Your task to perform on an android device: open app "Facebook Messenger" (install if not already installed) Image 0: 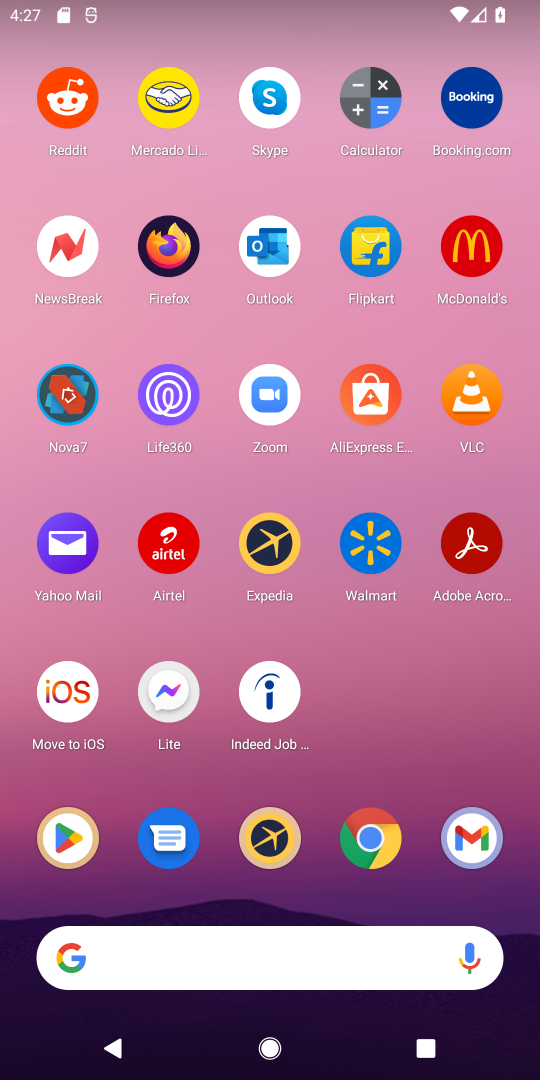
Step 0: click (78, 819)
Your task to perform on an android device: open app "Facebook Messenger" (install if not already installed) Image 1: 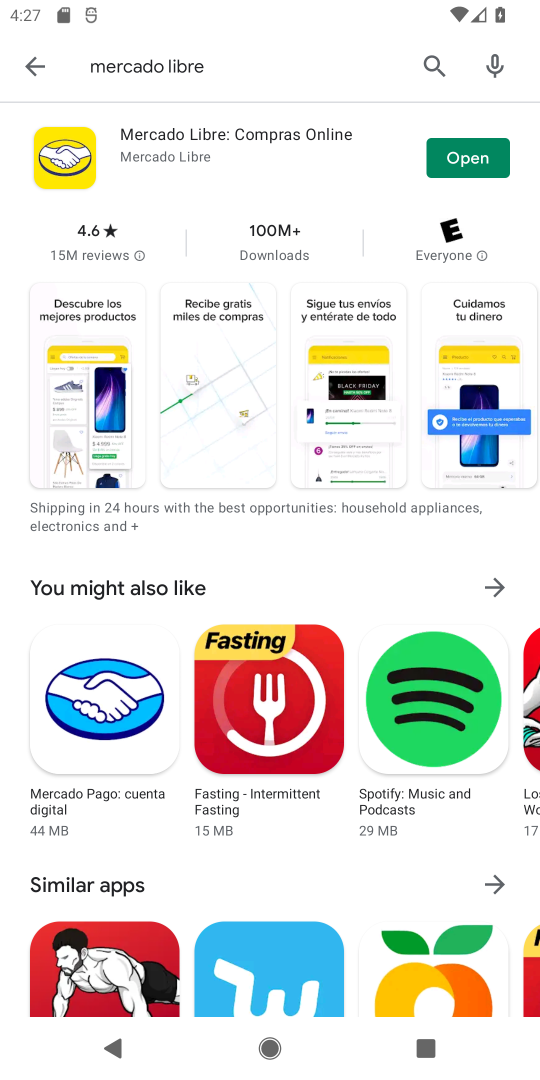
Step 1: click (435, 62)
Your task to perform on an android device: open app "Facebook Messenger" (install if not already installed) Image 2: 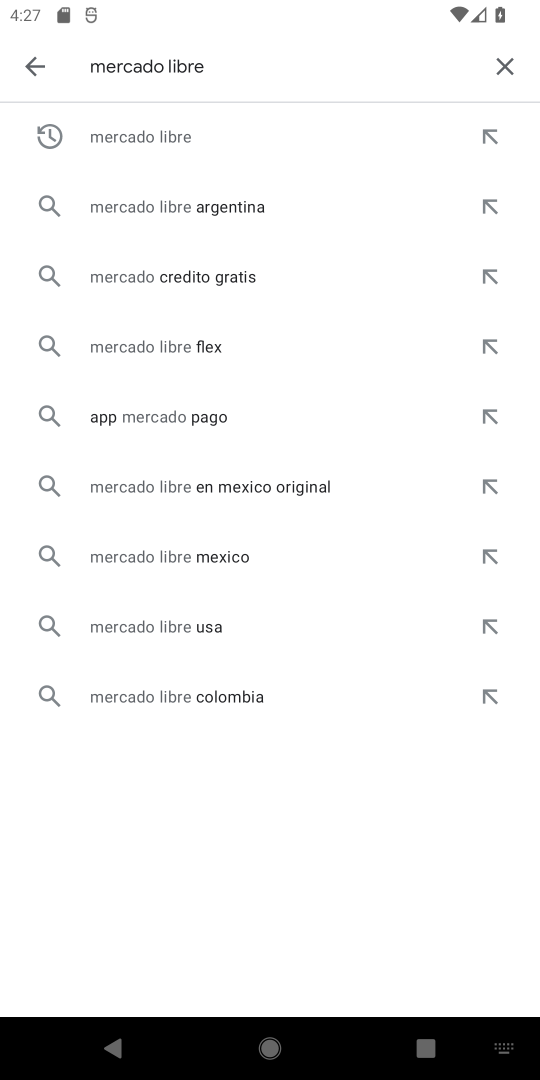
Step 2: click (488, 57)
Your task to perform on an android device: open app "Facebook Messenger" (install if not already installed) Image 3: 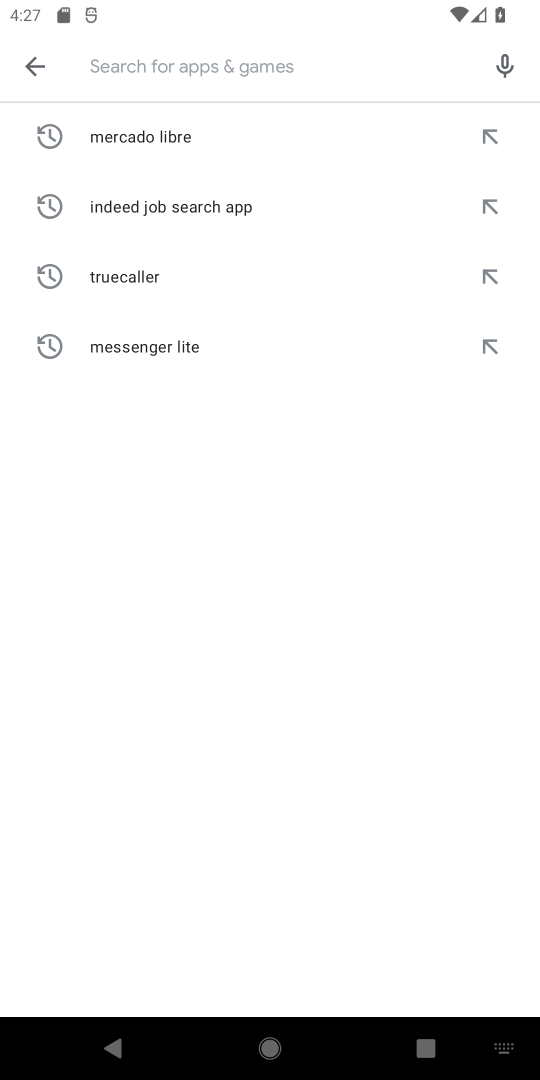
Step 3: type "Facebook Messenger"
Your task to perform on an android device: open app "Facebook Messenger" (install if not already installed) Image 4: 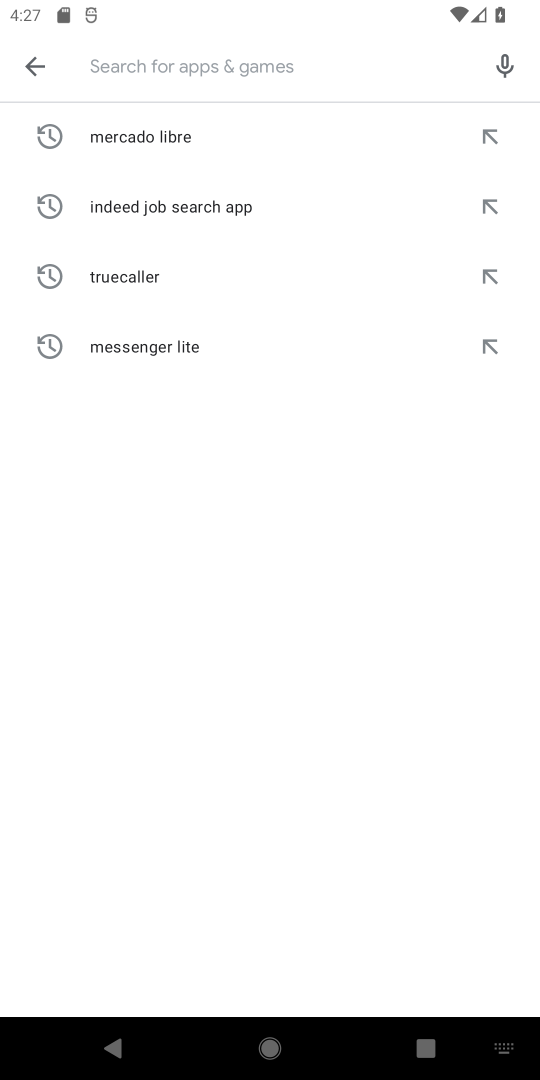
Step 4: click (236, 74)
Your task to perform on an android device: open app "Facebook Messenger" (install if not already installed) Image 5: 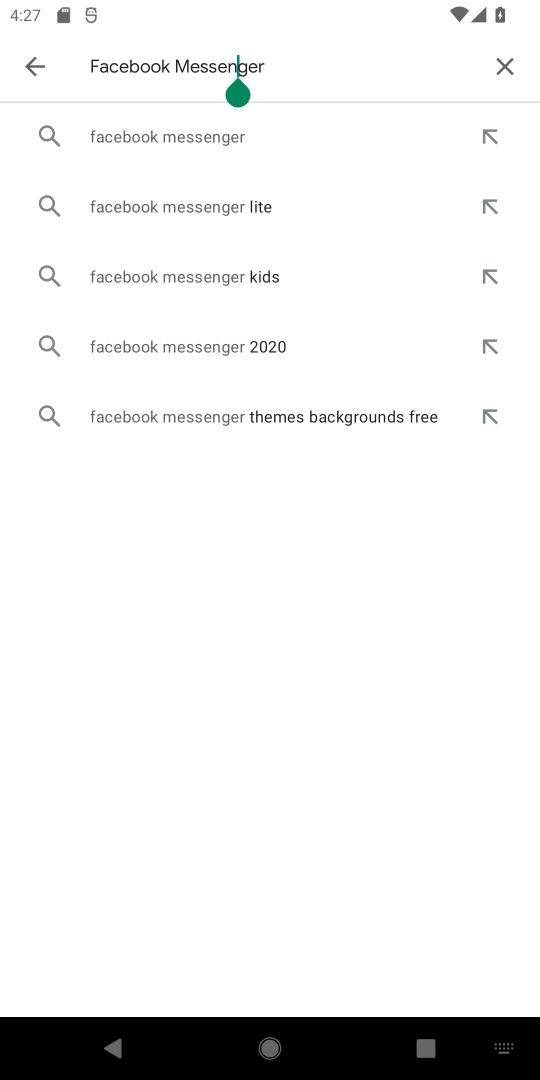
Step 5: click (259, 131)
Your task to perform on an android device: open app "Facebook Messenger" (install if not already installed) Image 6: 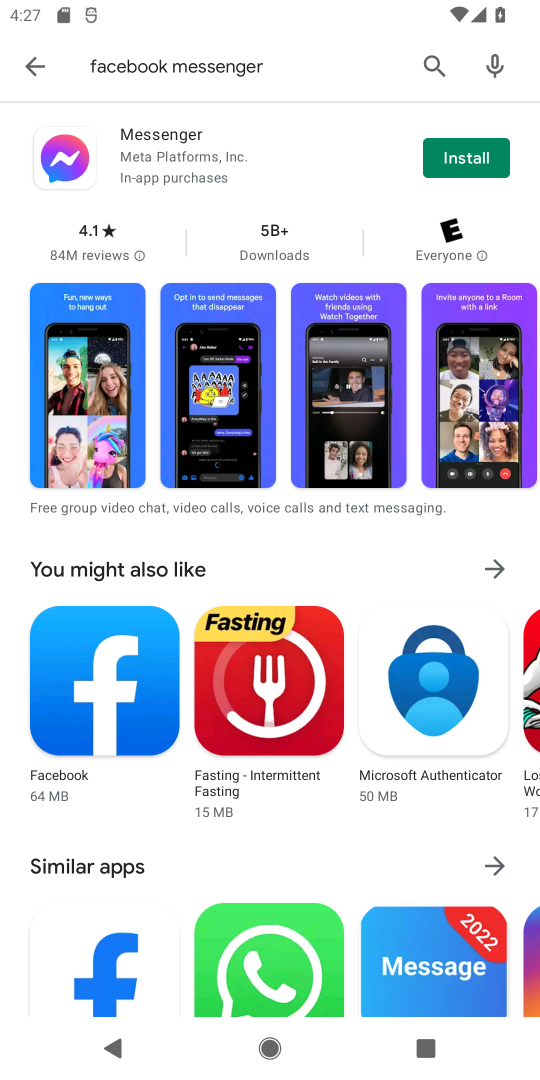
Step 6: click (496, 153)
Your task to perform on an android device: open app "Facebook Messenger" (install if not already installed) Image 7: 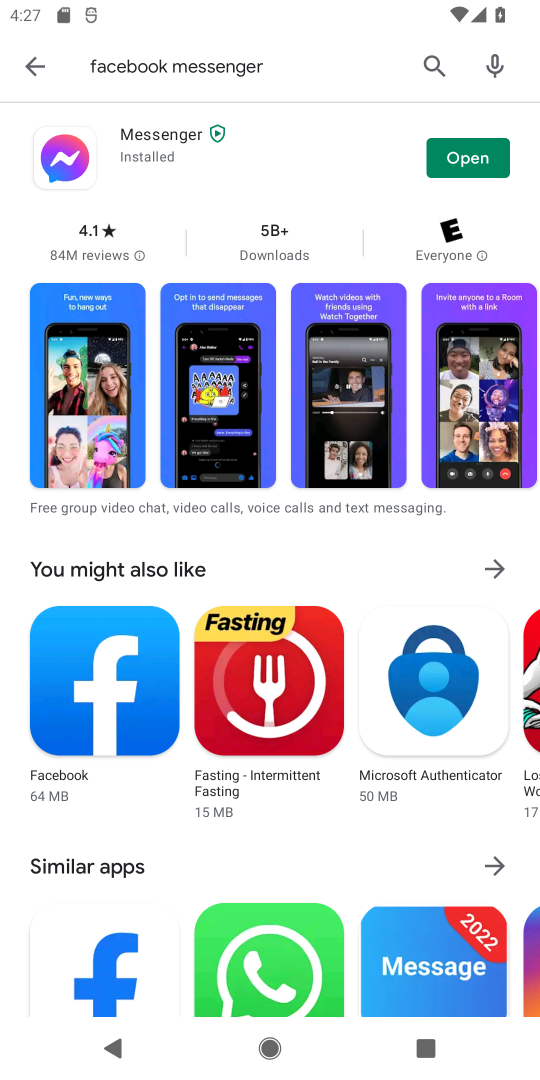
Step 7: click (485, 156)
Your task to perform on an android device: open app "Facebook Messenger" (install if not already installed) Image 8: 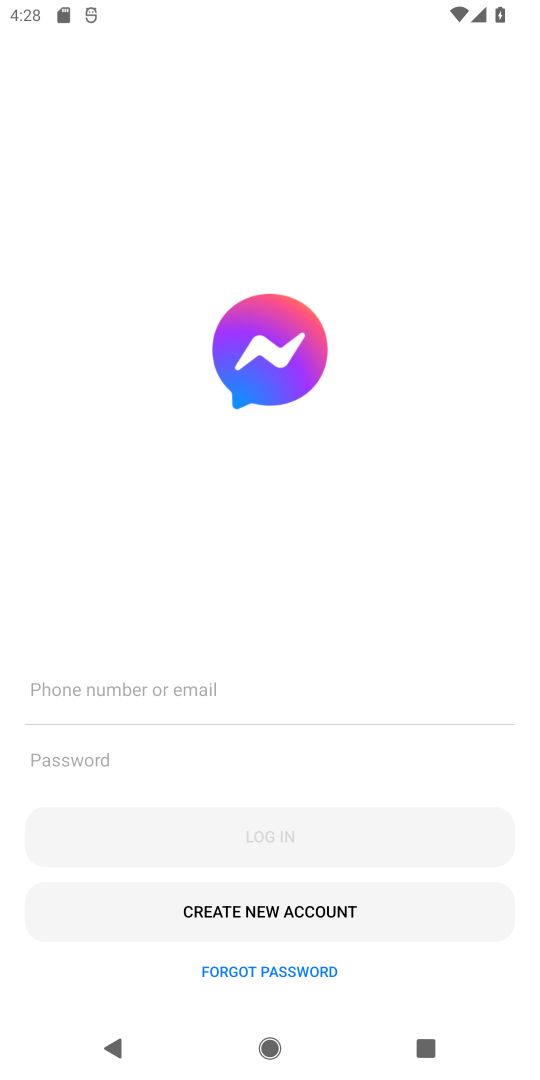
Step 8: task complete